Your task to perform on an android device: open a bookmark in the chrome app Image 0: 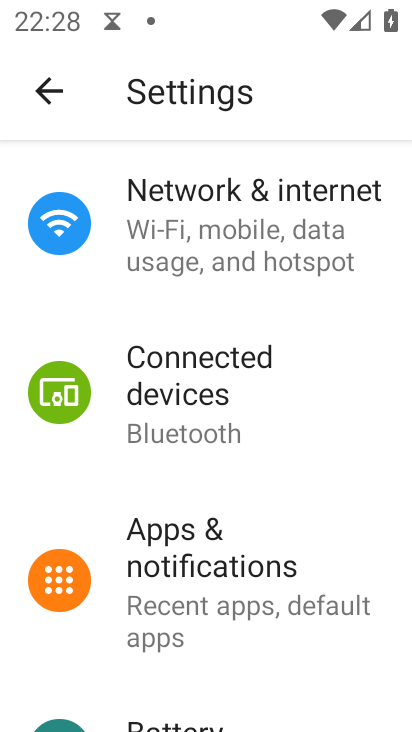
Step 0: press home button
Your task to perform on an android device: open a bookmark in the chrome app Image 1: 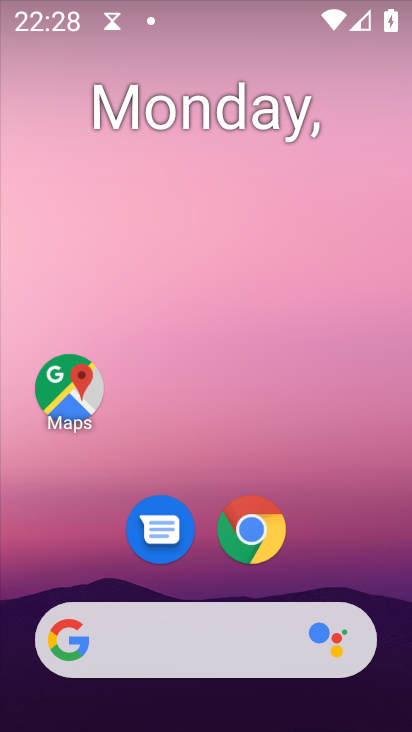
Step 1: click (253, 528)
Your task to perform on an android device: open a bookmark in the chrome app Image 2: 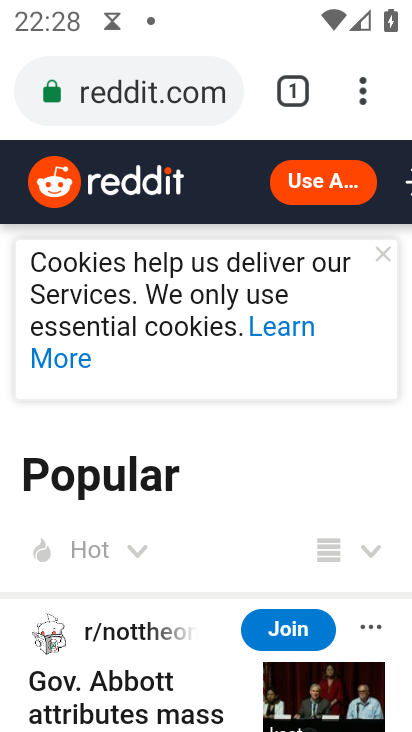
Step 2: click (362, 88)
Your task to perform on an android device: open a bookmark in the chrome app Image 3: 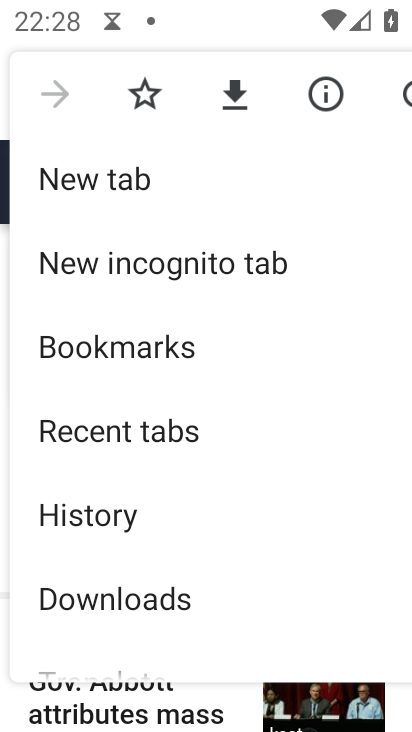
Step 3: click (167, 359)
Your task to perform on an android device: open a bookmark in the chrome app Image 4: 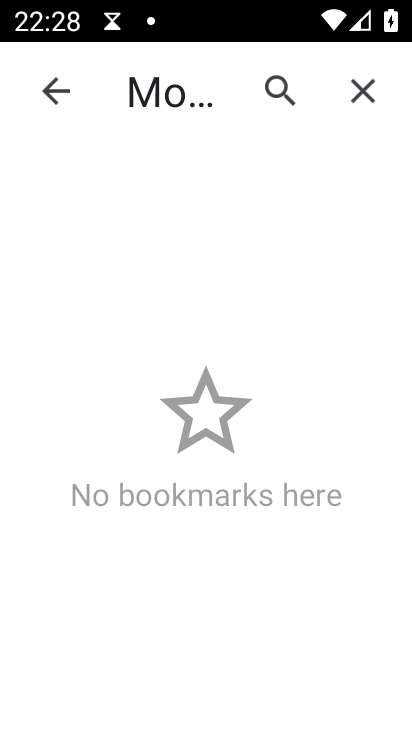
Step 4: task complete